Your task to perform on an android device: stop showing notifications on the lock screen Image 0: 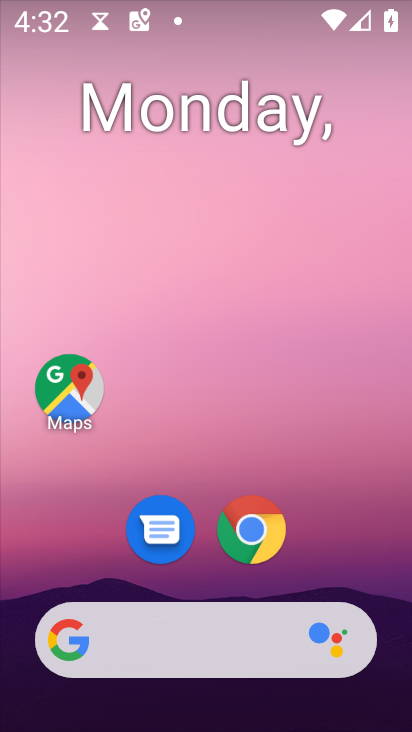
Step 0: drag from (213, 684) to (211, 266)
Your task to perform on an android device: stop showing notifications on the lock screen Image 1: 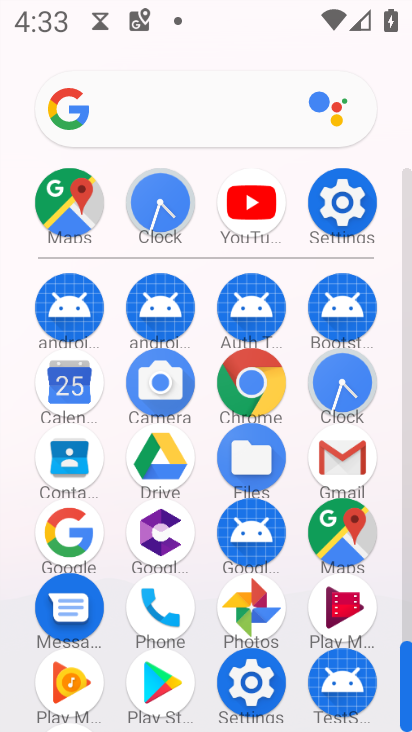
Step 1: click (343, 206)
Your task to perform on an android device: stop showing notifications on the lock screen Image 2: 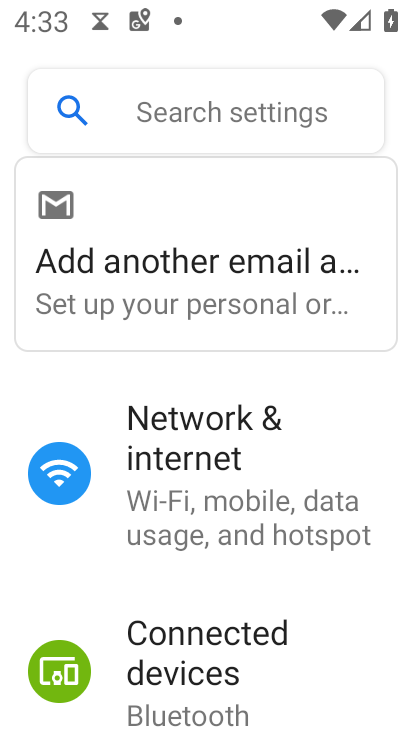
Step 2: drag from (201, 701) to (210, 325)
Your task to perform on an android device: stop showing notifications on the lock screen Image 3: 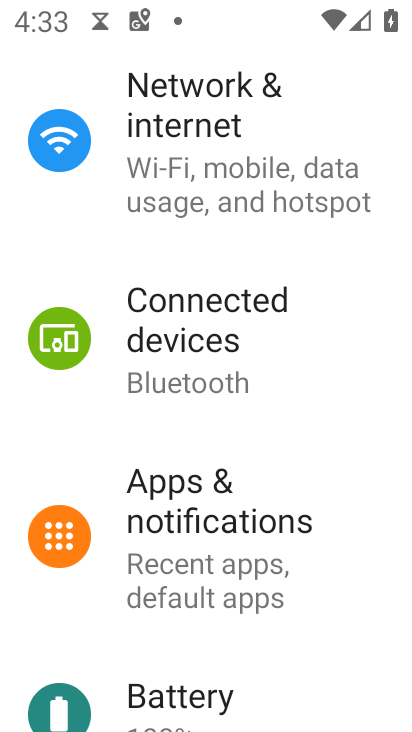
Step 3: click (207, 501)
Your task to perform on an android device: stop showing notifications on the lock screen Image 4: 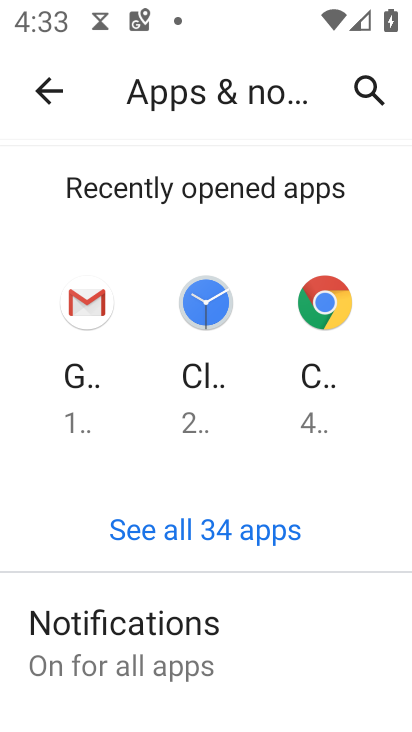
Step 4: drag from (180, 691) to (215, 423)
Your task to perform on an android device: stop showing notifications on the lock screen Image 5: 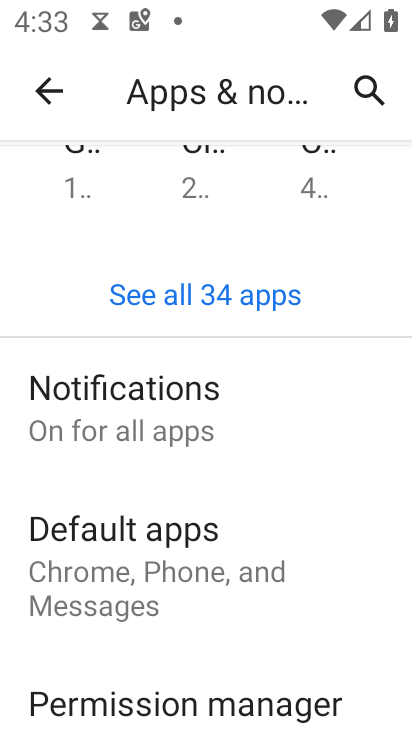
Step 5: click (128, 425)
Your task to perform on an android device: stop showing notifications on the lock screen Image 6: 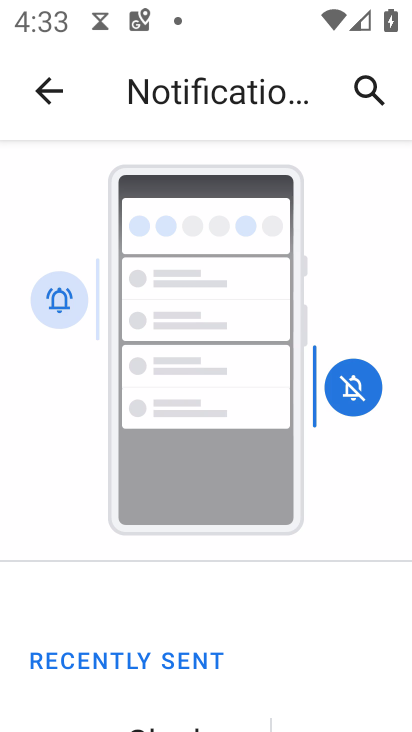
Step 6: task complete